Your task to perform on an android device: find snoozed emails in the gmail app Image 0: 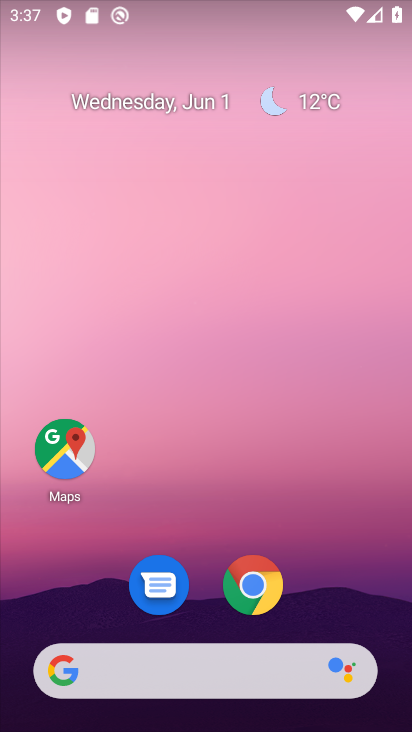
Step 0: drag from (356, 576) to (371, 63)
Your task to perform on an android device: find snoozed emails in the gmail app Image 1: 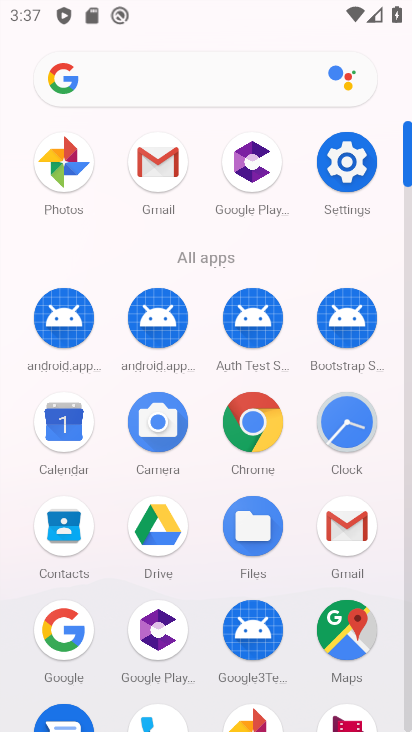
Step 1: click (176, 169)
Your task to perform on an android device: find snoozed emails in the gmail app Image 2: 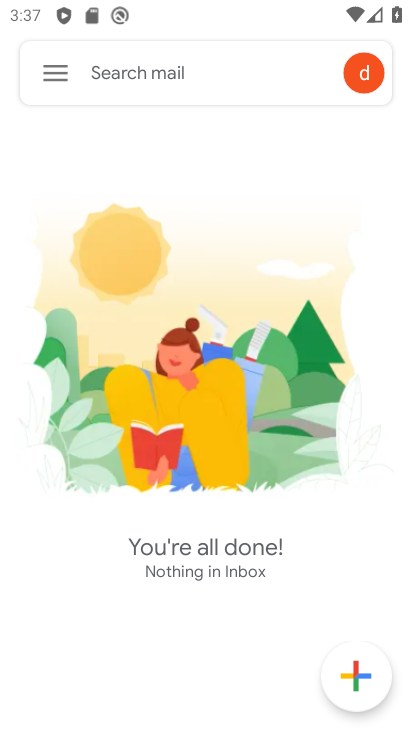
Step 2: click (59, 75)
Your task to perform on an android device: find snoozed emails in the gmail app Image 3: 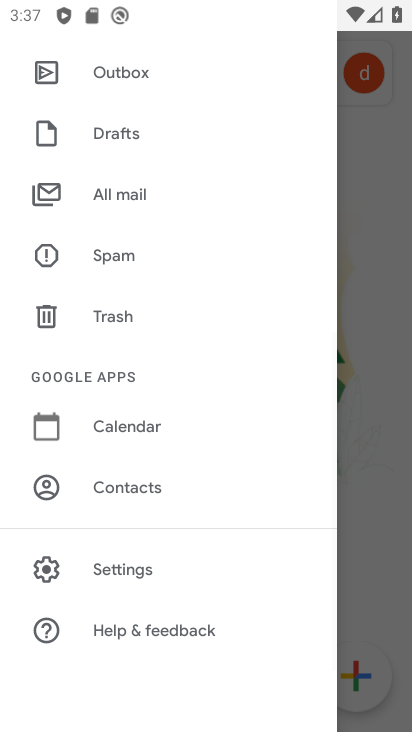
Step 3: drag from (166, 218) to (177, 611)
Your task to perform on an android device: find snoozed emails in the gmail app Image 4: 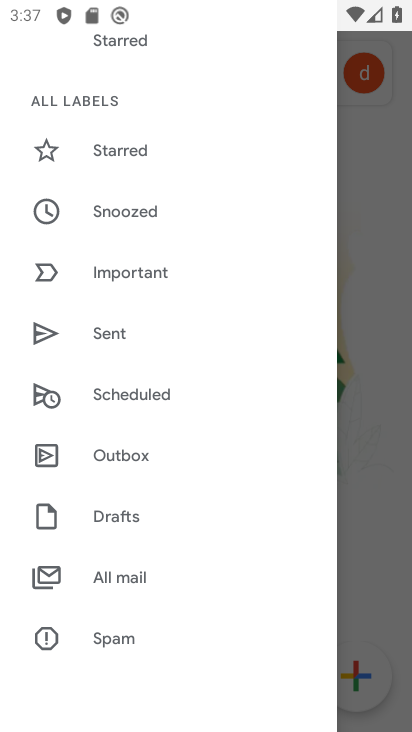
Step 4: click (186, 213)
Your task to perform on an android device: find snoozed emails in the gmail app Image 5: 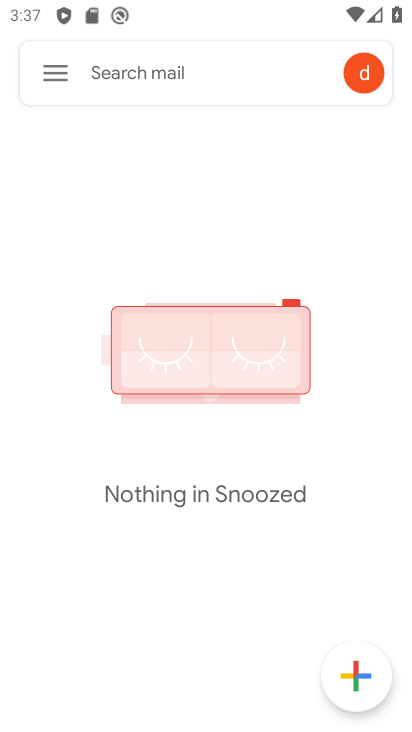
Step 5: task complete